Your task to perform on an android device: turn off priority inbox in the gmail app Image 0: 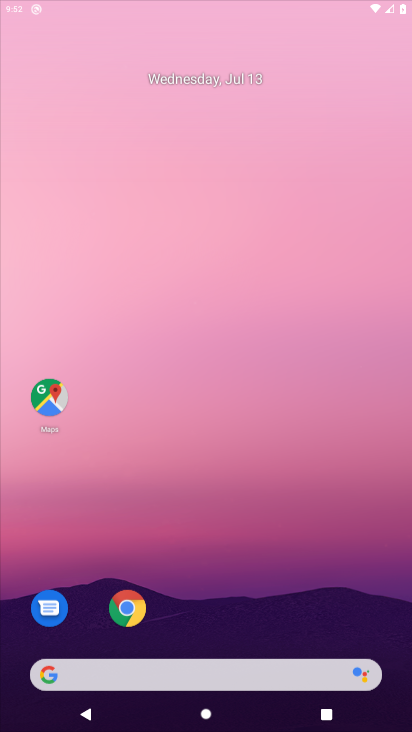
Step 0: drag from (28, 705) to (259, 158)
Your task to perform on an android device: turn off priority inbox in the gmail app Image 1: 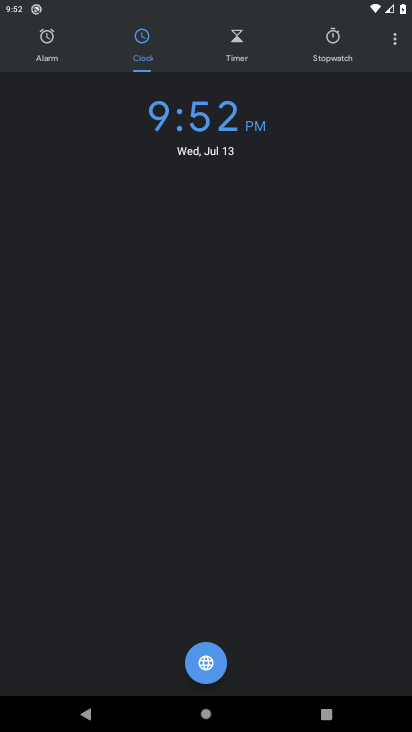
Step 1: press home button
Your task to perform on an android device: turn off priority inbox in the gmail app Image 2: 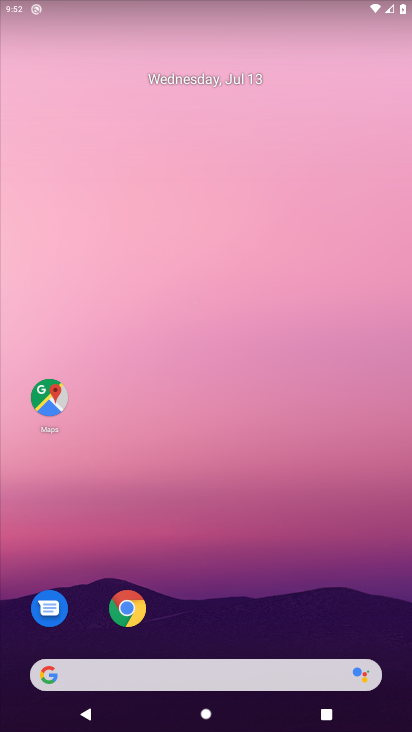
Step 2: drag from (304, 137) to (402, 278)
Your task to perform on an android device: turn off priority inbox in the gmail app Image 3: 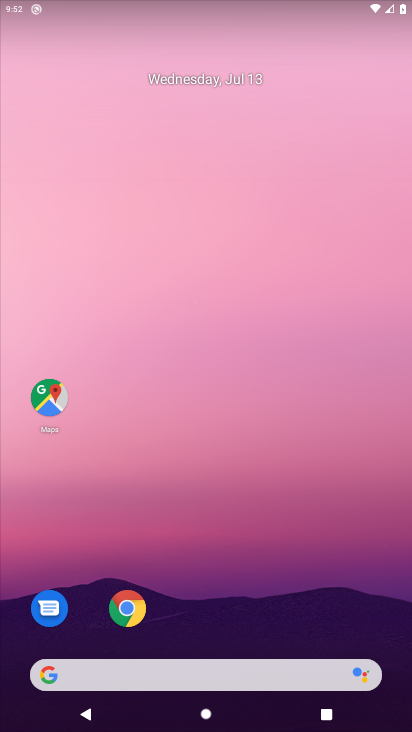
Step 3: drag from (58, 660) to (363, 21)
Your task to perform on an android device: turn off priority inbox in the gmail app Image 4: 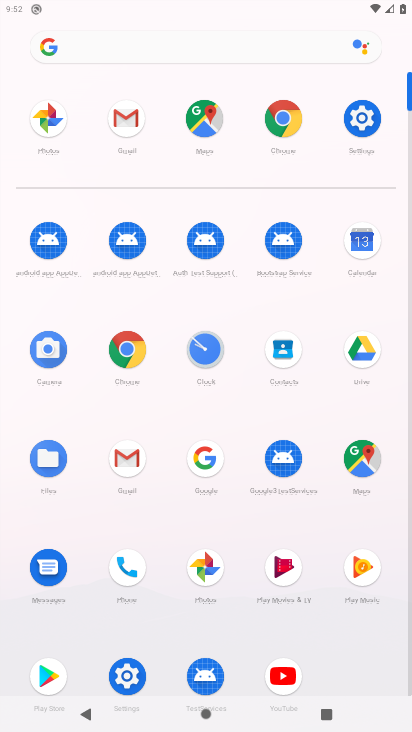
Step 4: click (122, 454)
Your task to perform on an android device: turn off priority inbox in the gmail app Image 5: 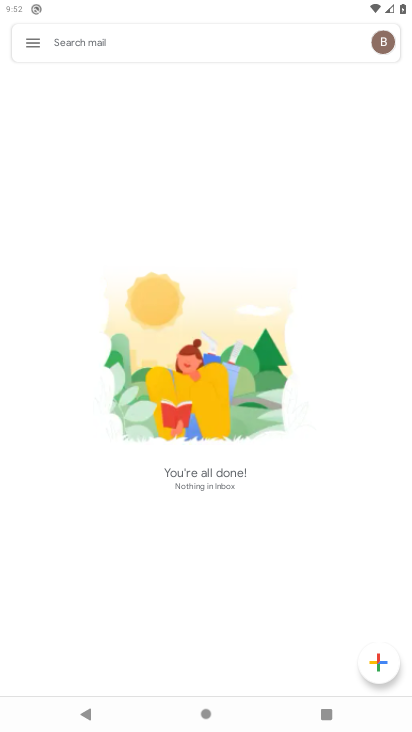
Step 5: click (40, 42)
Your task to perform on an android device: turn off priority inbox in the gmail app Image 6: 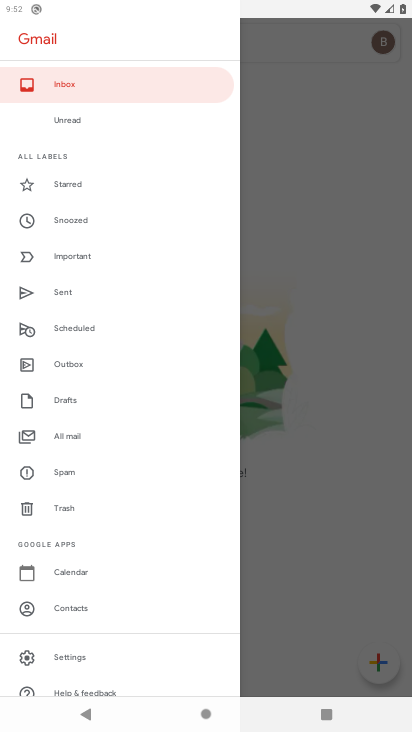
Step 6: click (75, 665)
Your task to perform on an android device: turn off priority inbox in the gmail app Image 7: 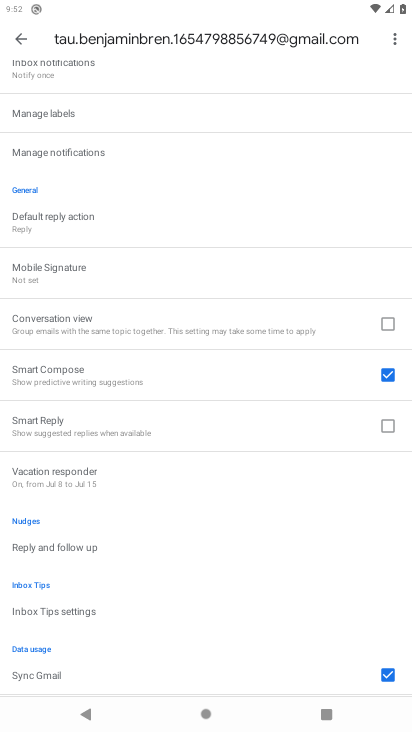
Step 7: click (85, 70)
Your task to perform on an android device: turn off priority inbox in the gmail app Image 8: 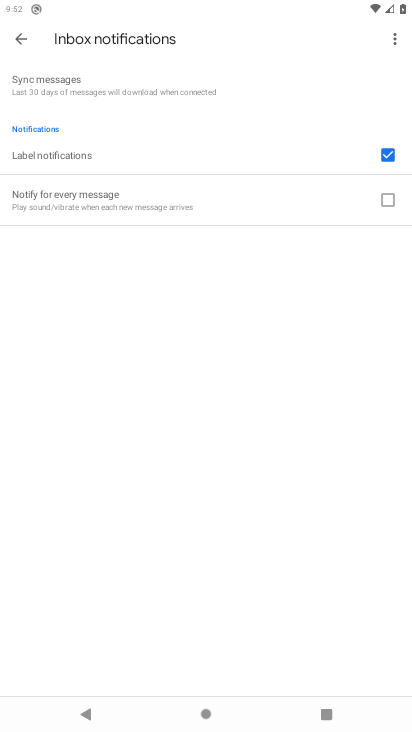
Step 8: click (24, 37)
Your task to perform on an android device: turn off priority inbox in the gmail app Image 9: 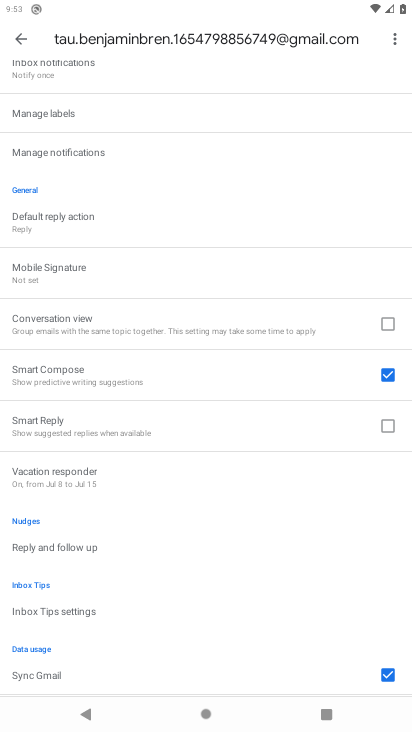
Step 9: task complete